Your task to perform on an android device: Open Google Maps Image 0: 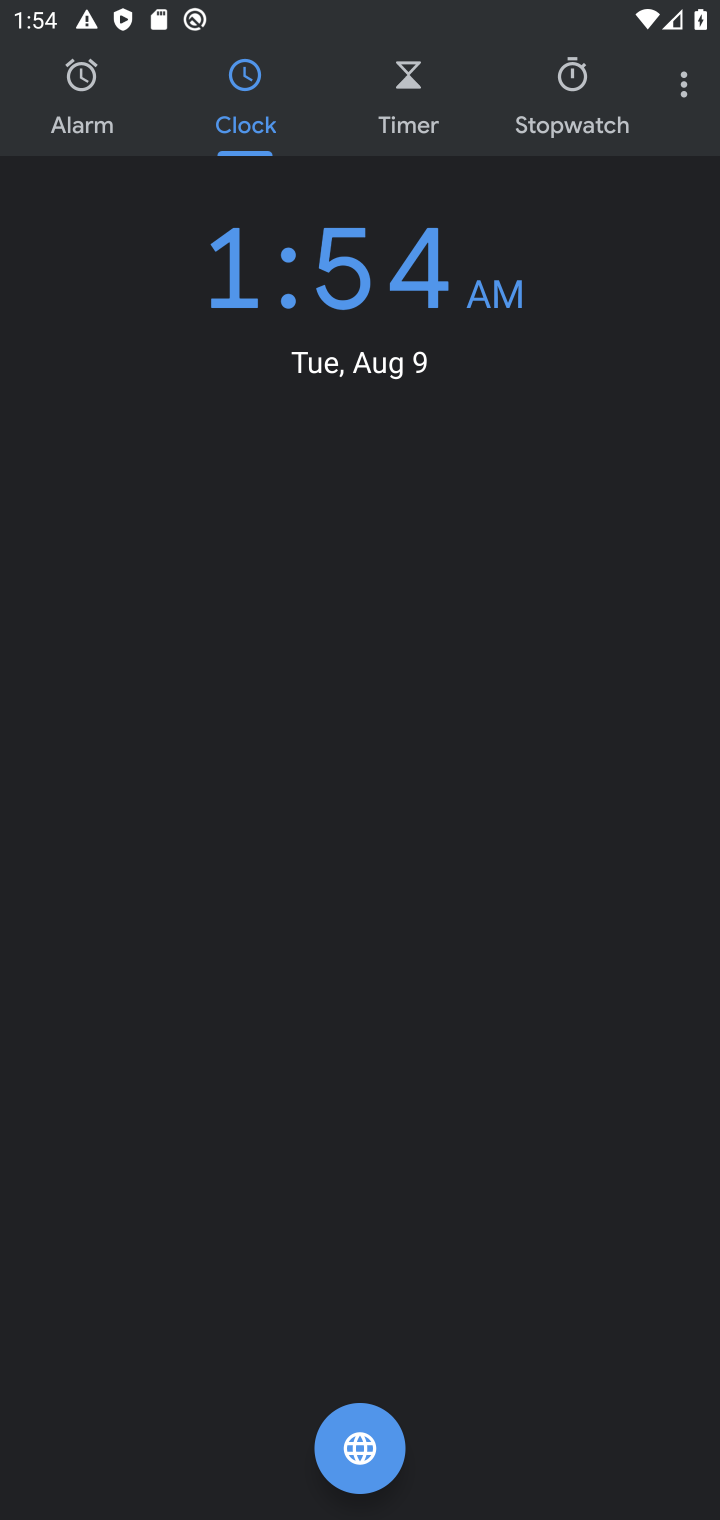
Step 0: press home button
Your task to perform on an android device: Open Google Maps Image 1: 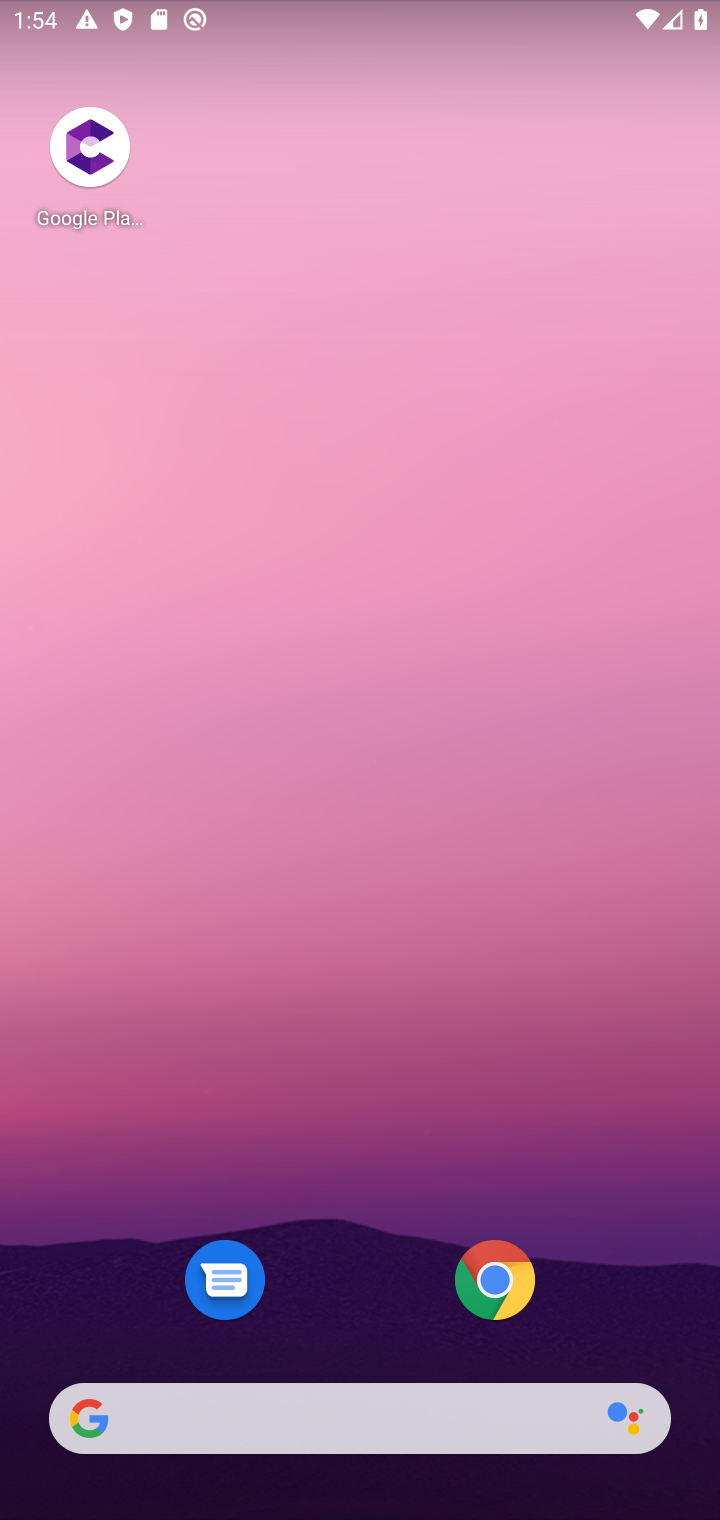
Step 1: drag from (417, 1075) to (616, 101)
Your task to perform on an android device: Open Google Maps Image 2: 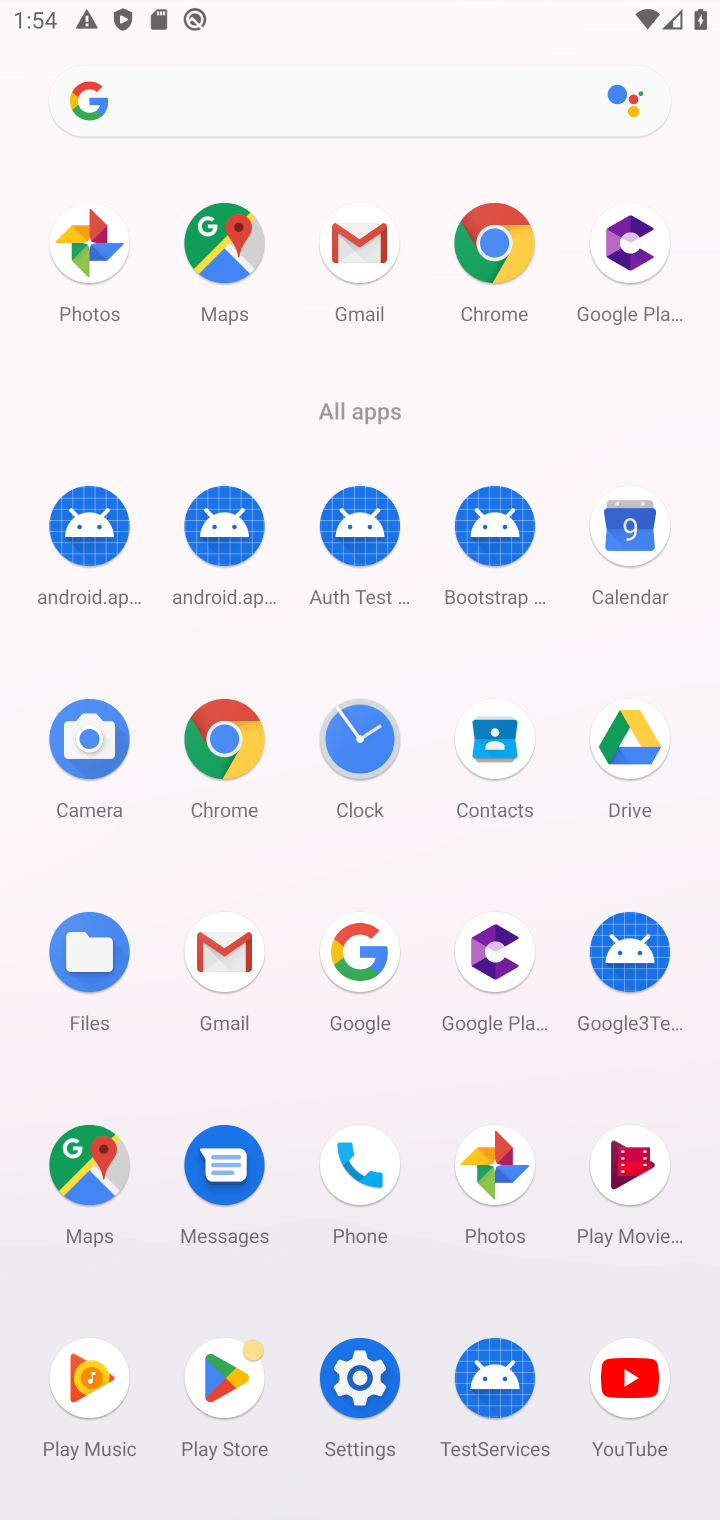
Step 2: click (92, 1173)
Your task to perform on an android device: Open Google Maps Image 3: 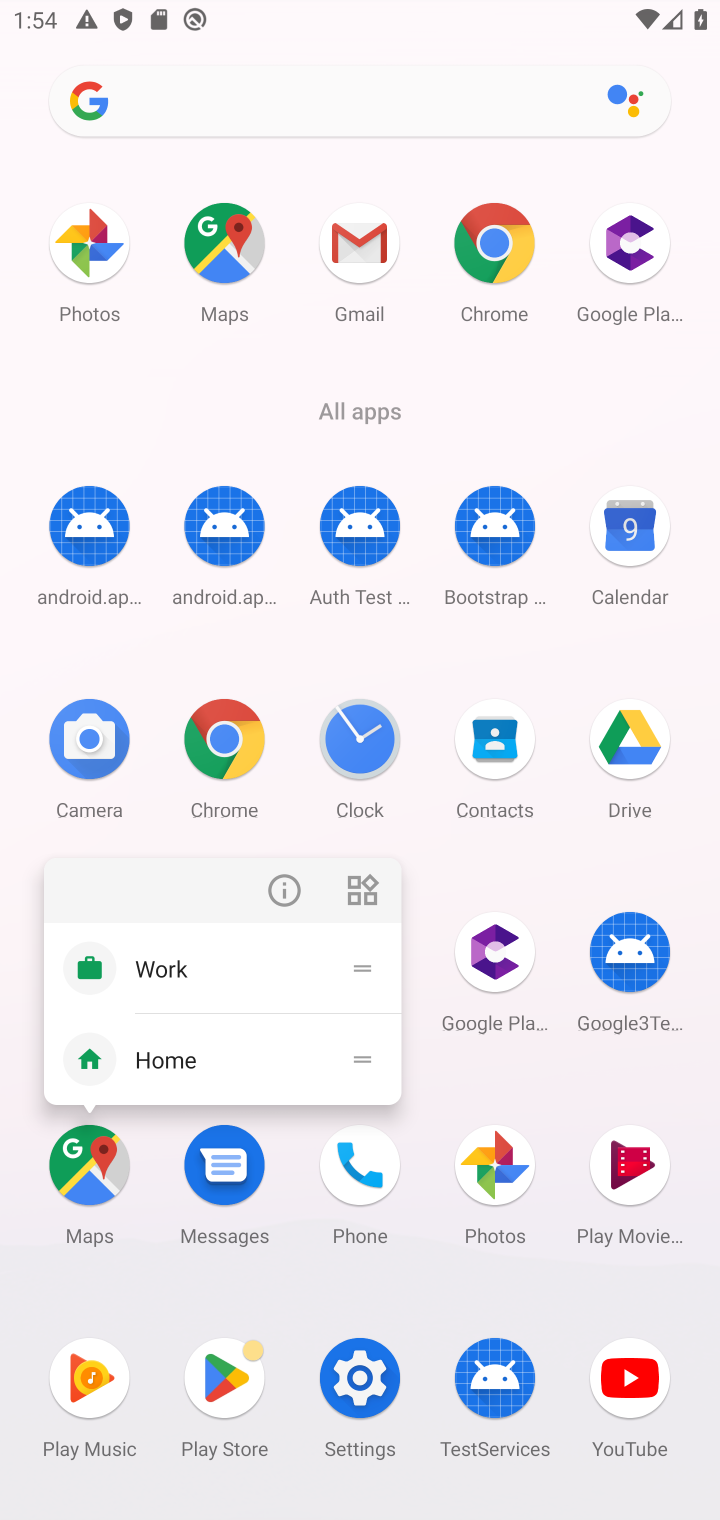
Step 3: click (76, 1175)
Your task to perform on an android device: Open Google Maps Image 4: 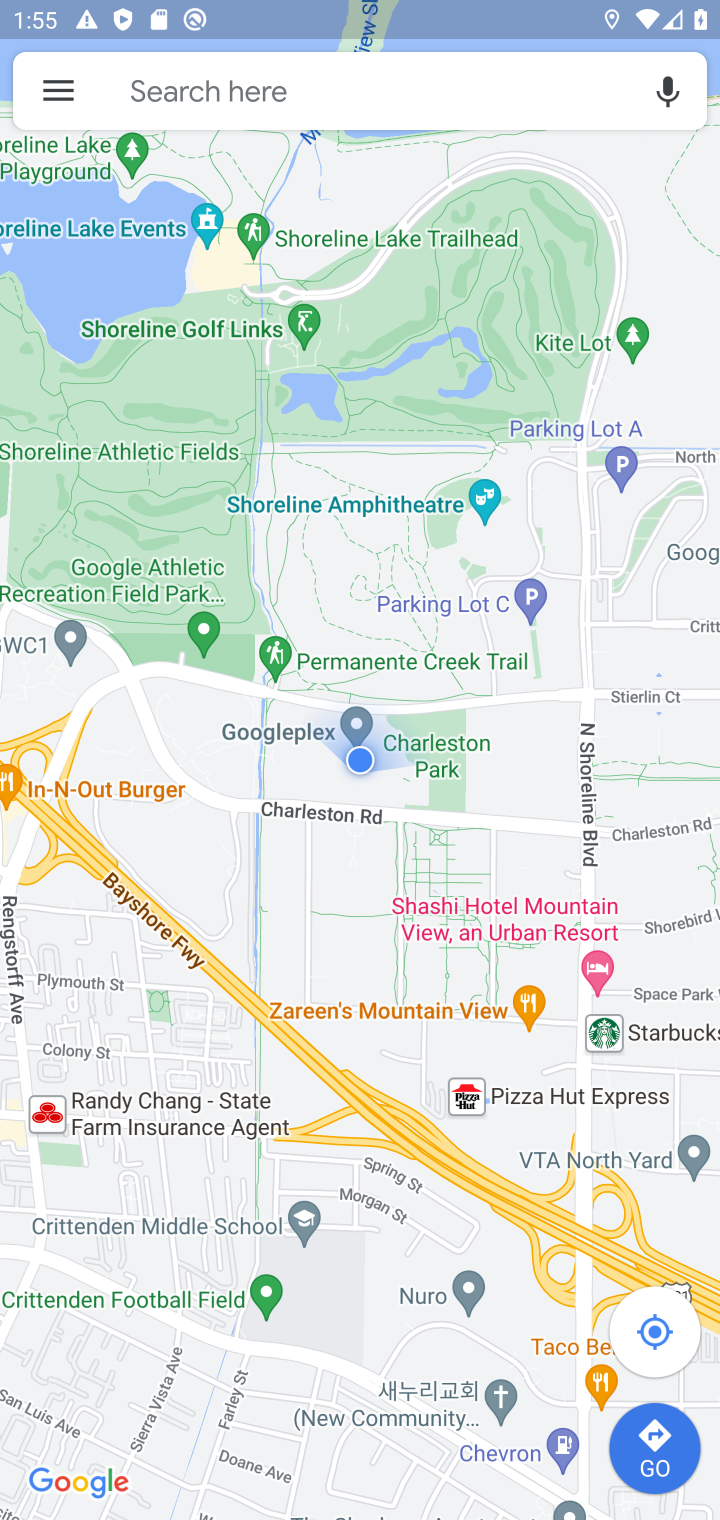
Step 4: task complete